Your task to perform on an android device: check android version Image 0: 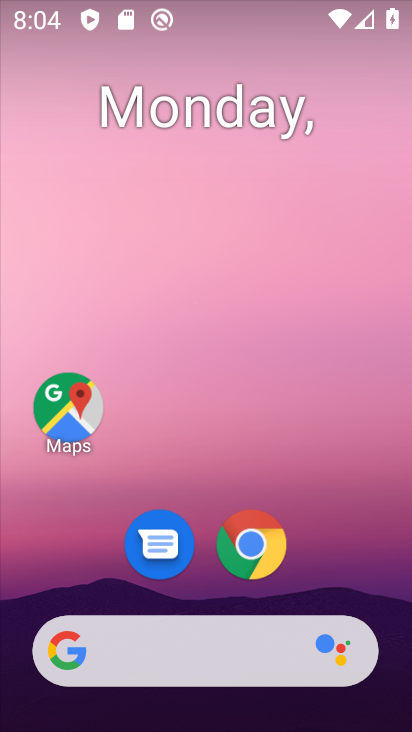
Step 0: drag from (208, 598) to (129, 0)
Your task to perform on an android device: check android version Image 1: 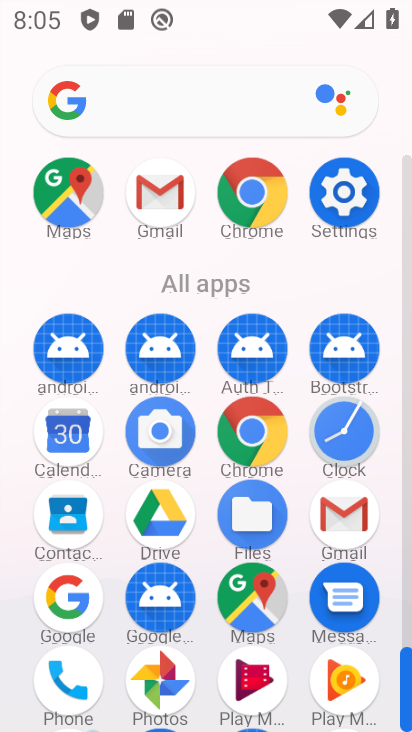
Step 1: click (363, 186)
Your task to perform on an android device: check android version Image 2: 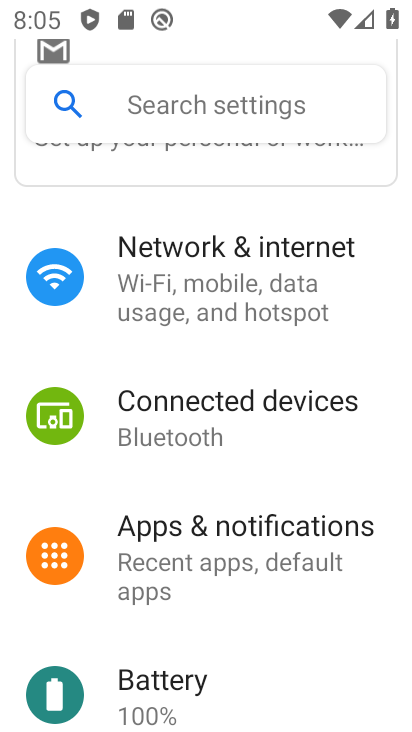
Step 2: drag from (234, 563) to (136, 11)
Your task to perform on an android device: check android version Image 3: 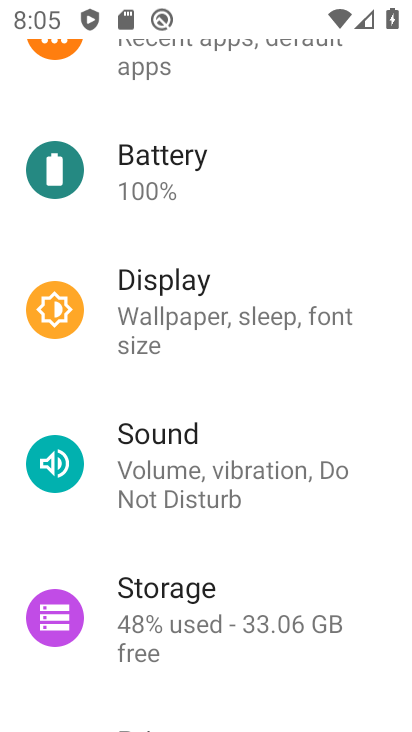
Step 3: drag from (172, 429) to (127, 21)
Your task to perform on an android device: check android version Image 4: 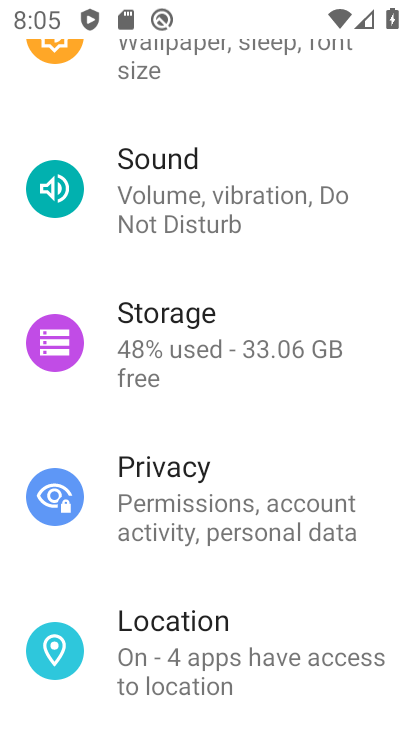
Step 4: drag from (200, 383) to (129, 4)
Your task to perform on an android device: check android version Image 5: 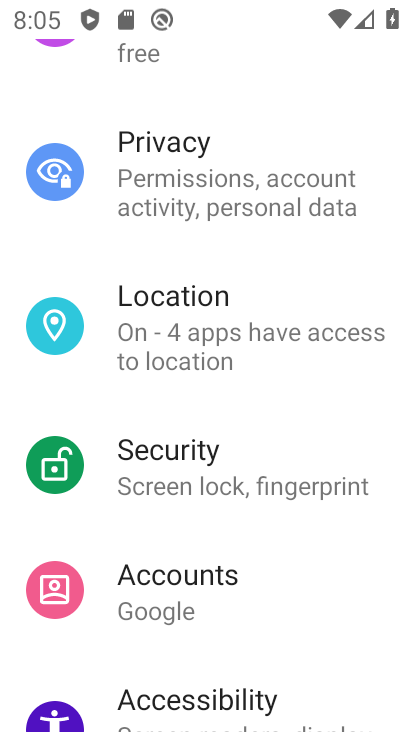
Step 5: drag from (232, 608) to (149, 47)
Your task to perform on an android device: check android version Image 6: 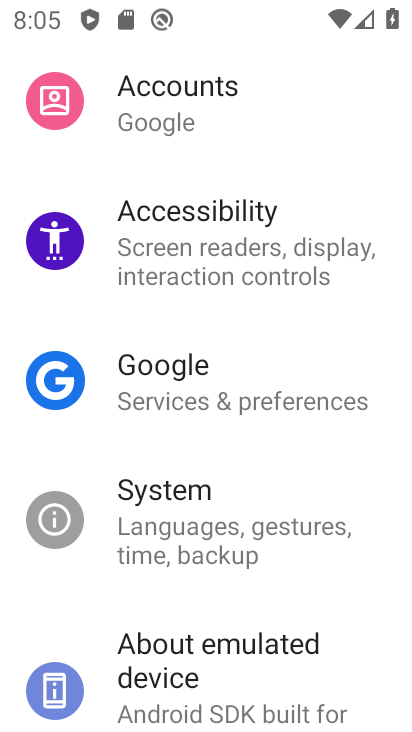
Step 6: click (219, 633)
Your task to perform on an android device: check android version Image 7: 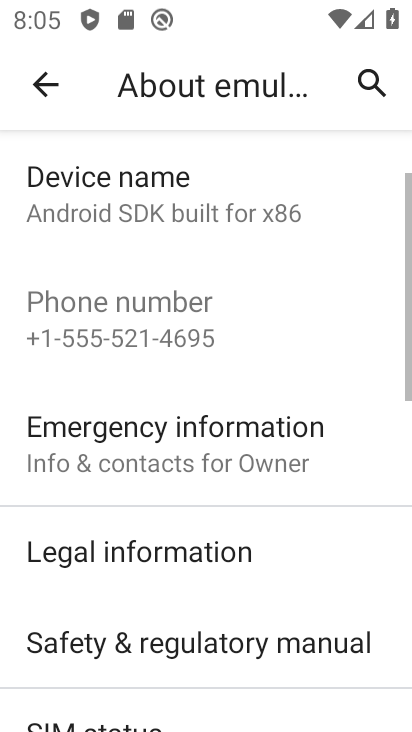
Step 7: drag from (191, 534) to (124, 67)
Your task to perform on an android device: check android version Image 8: 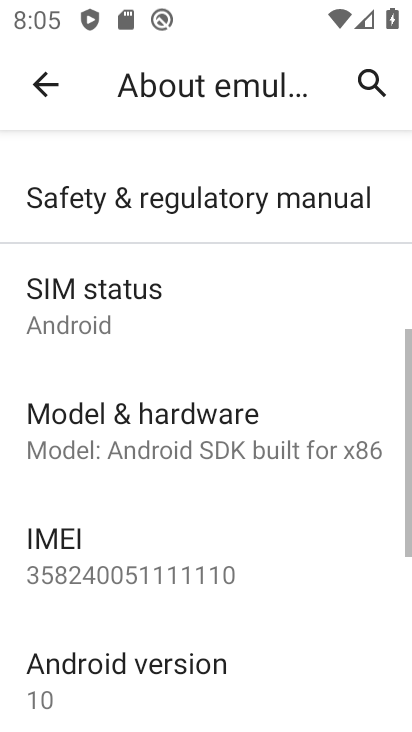
Step 8: click (205, 658)
Your task to perform on an android device: check android version Image 9: 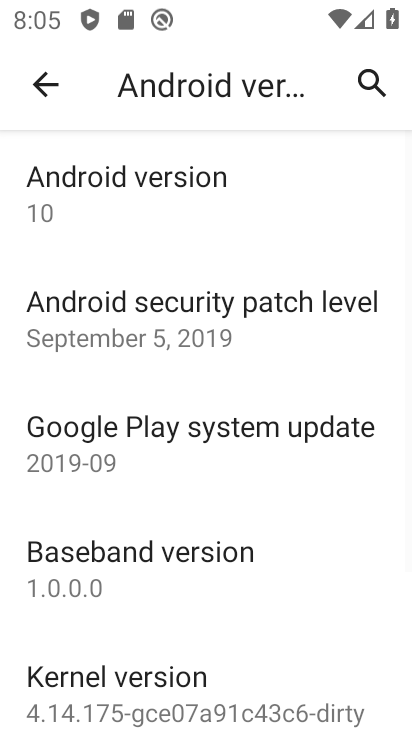
Step 9: task complete